Your task to perform on an android device: empty trash in google photos Image 0: 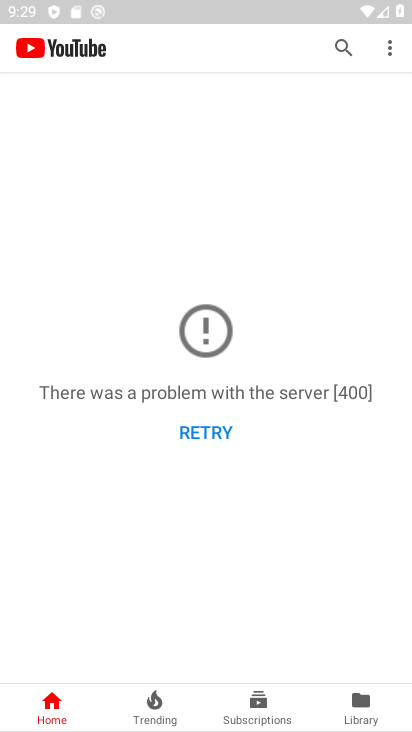
Step 0: press home button
Your task to perform on an android device: empty trash in google photos Image 1: 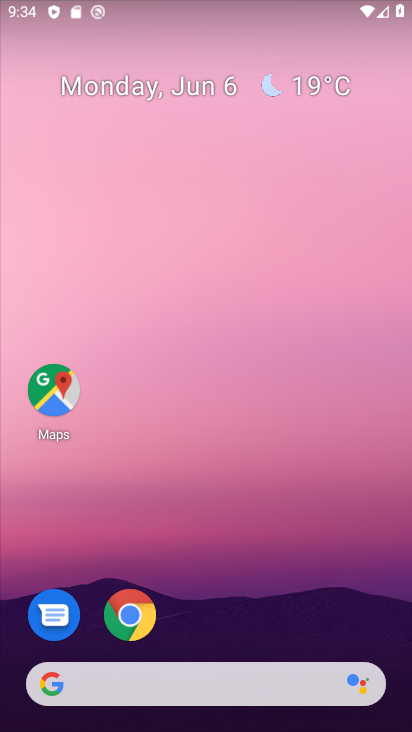
Step 1: drag from (266, 624) to (279, 266)
Your task to perform on an android device: empty trash in google photos Image 2: 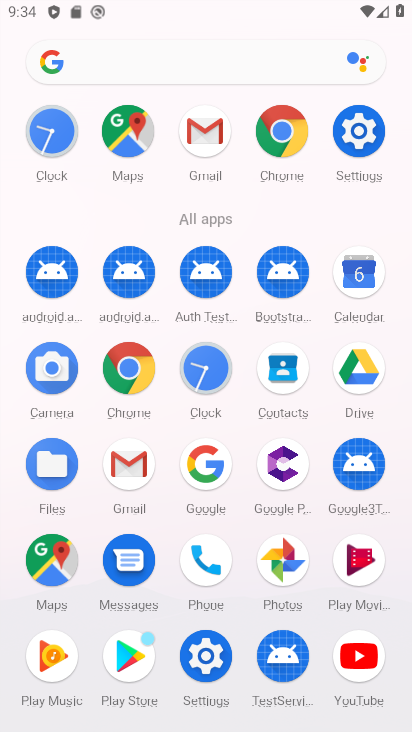
Step 2: click (296, 577)
Your task to perform on an android device: empty trash in google photos Image 3: 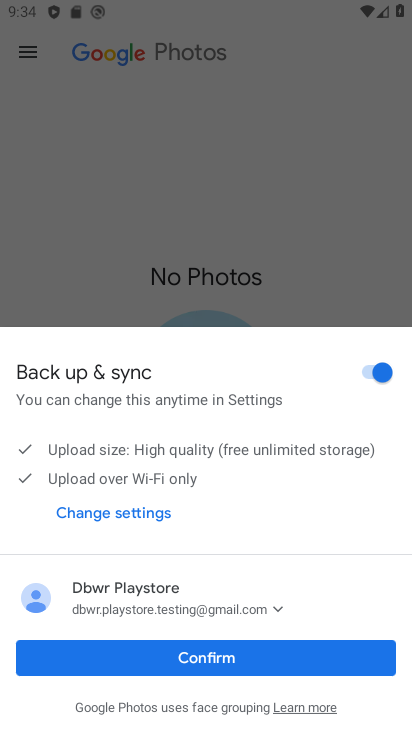
Step 3: task complete